Your task to perform on an android device: find snoozed emails in the gmail app Image 0: 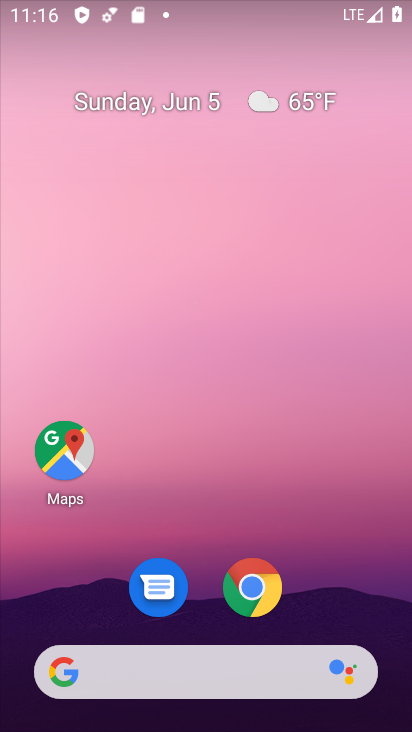
Step 0: drag from (220, 614) to (237, 131)
Your task to perform on an android device: find snoozed emails in the gmail app Image 1: 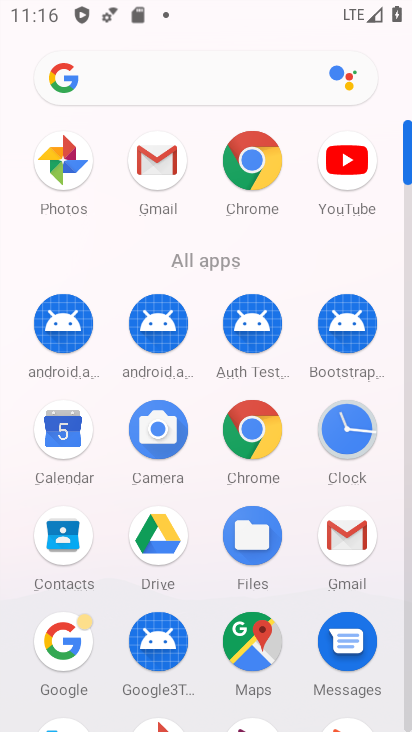
Step 1: click (152, 146)
Your task to perform on an android device: find snoozed emails in the gmail app Image 2: 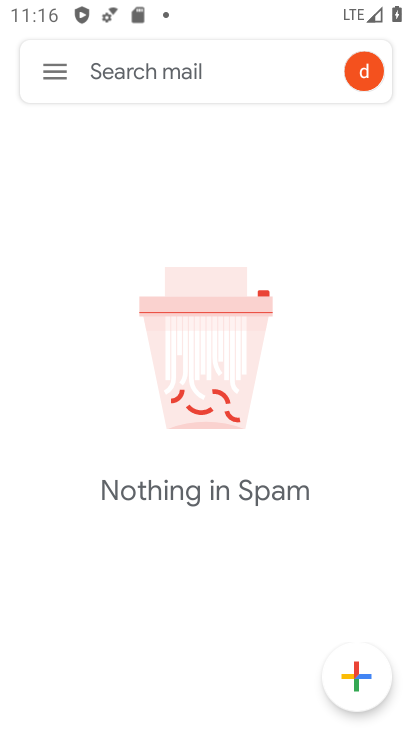
Step 2: click (52, 66)
Your task to perform on an android device: find snoozed emails in the gmail app Image 3: 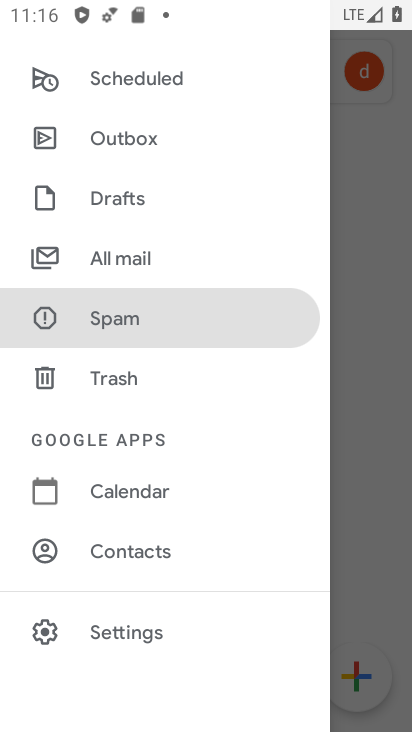
Step 3: drag from (118, 135) to (186, 494)
Your task to perform on an android device: find snoozed emails in the gmail app Image 4: 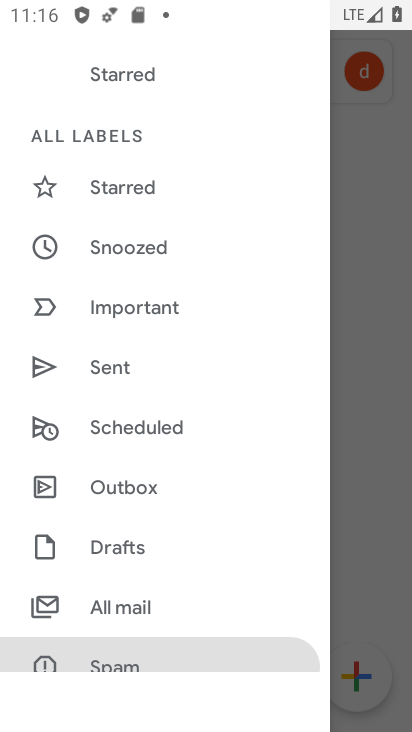
Step 4: click (113, 244)
Your task to perform on an android device: find snoozed emails in the gmail app Image 5: 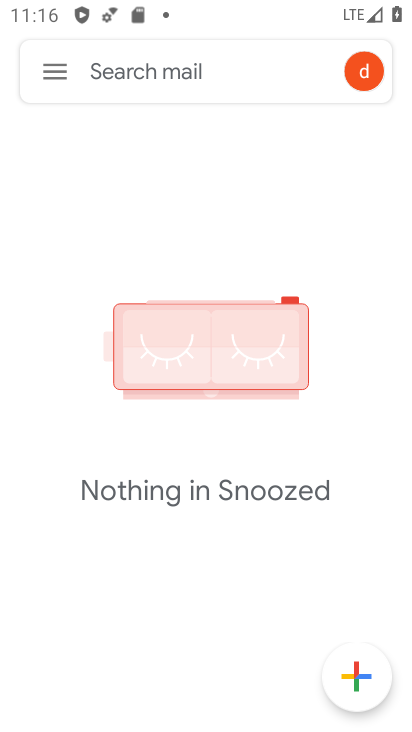
Step 5: task complete